Your task to perform on an android device: uninstall "Pandora - Music & Podcasts" Image 0: 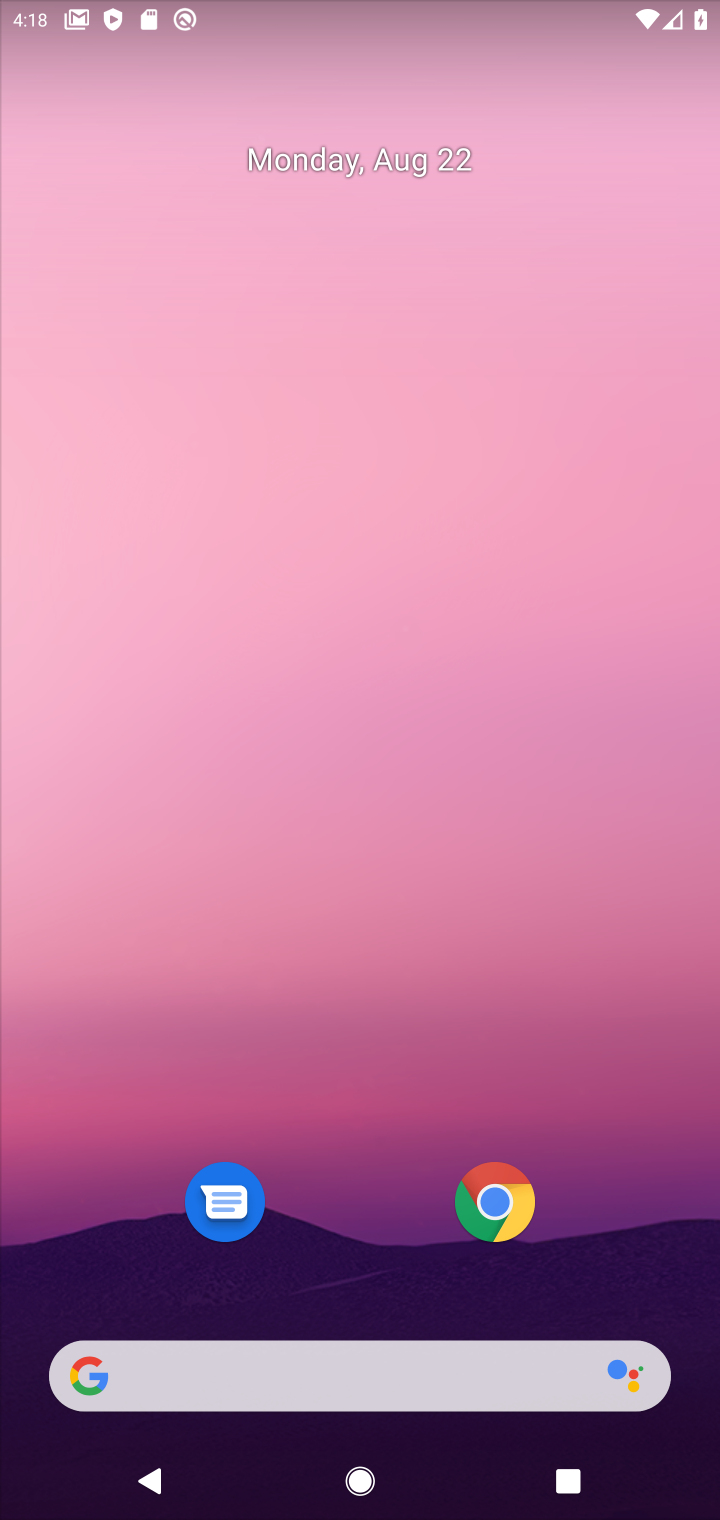
Step 0: drag from (378, 1006) to (492, 4)
Your task to perform on an android device: uninstall "Pandora - Music & Podcasts" Image 1: 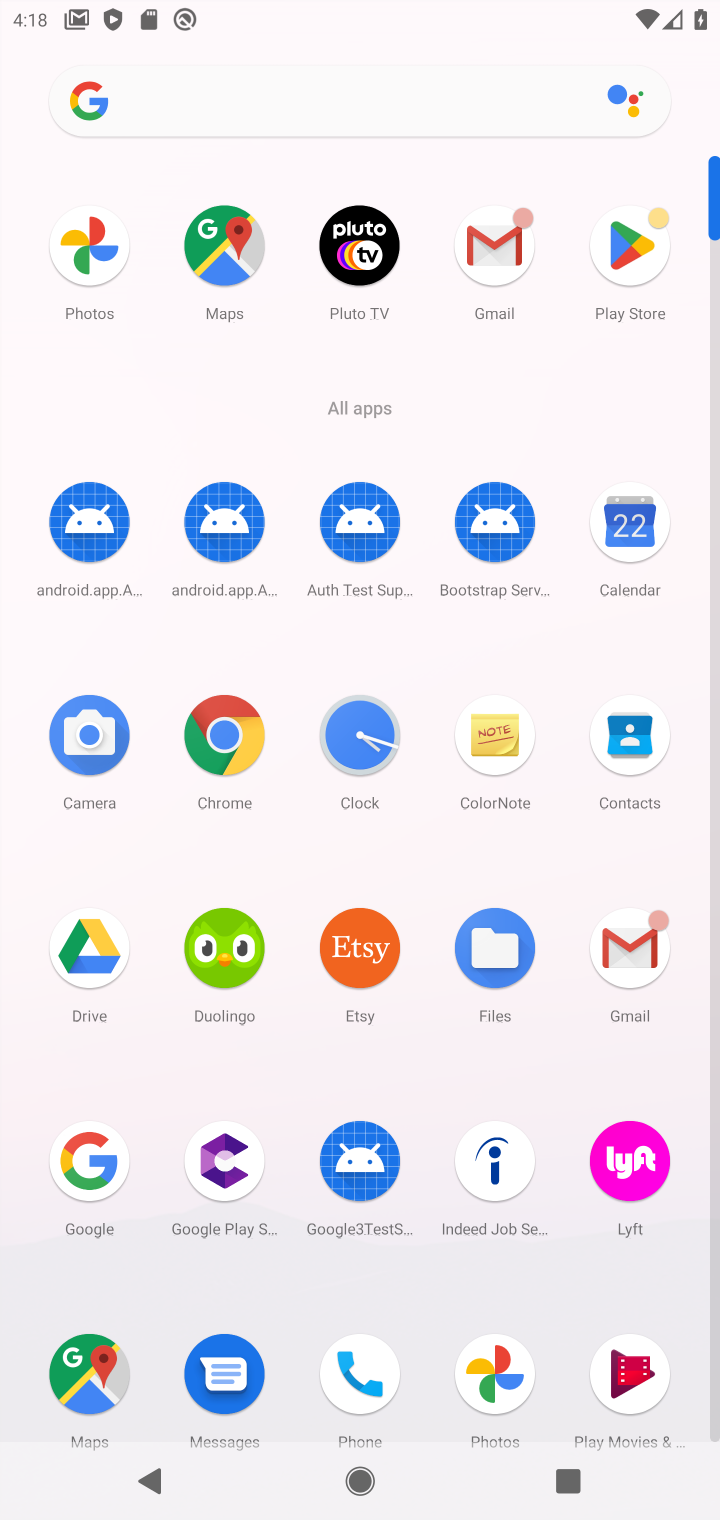
Step 1: click (630, 289)
Your task to perform on an android device: uninstall "Pandora - Music & Podcasts" Image 2: 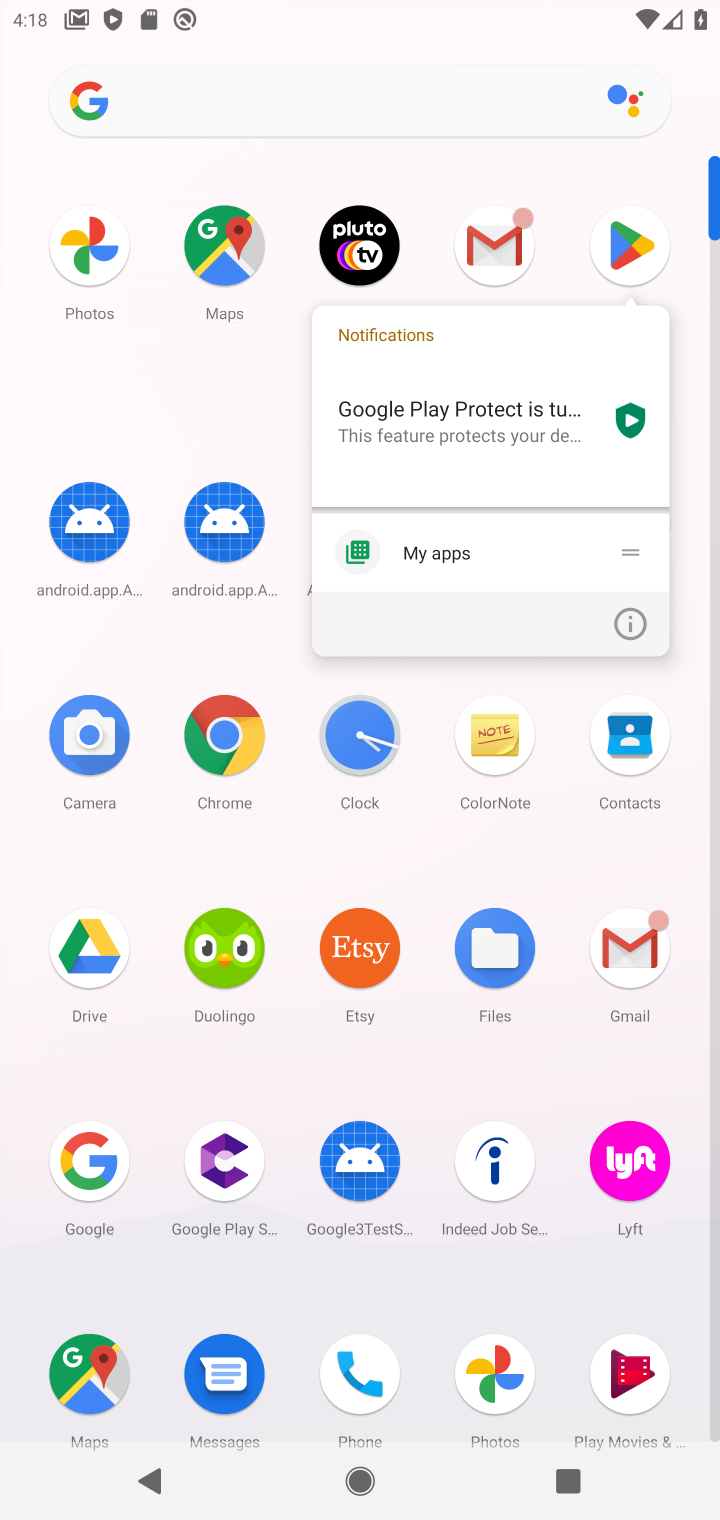
Step 2: click (605, 238)
Your task to perform on an android device: uninstall "Pandora - Music & Podcasts" Image 3: 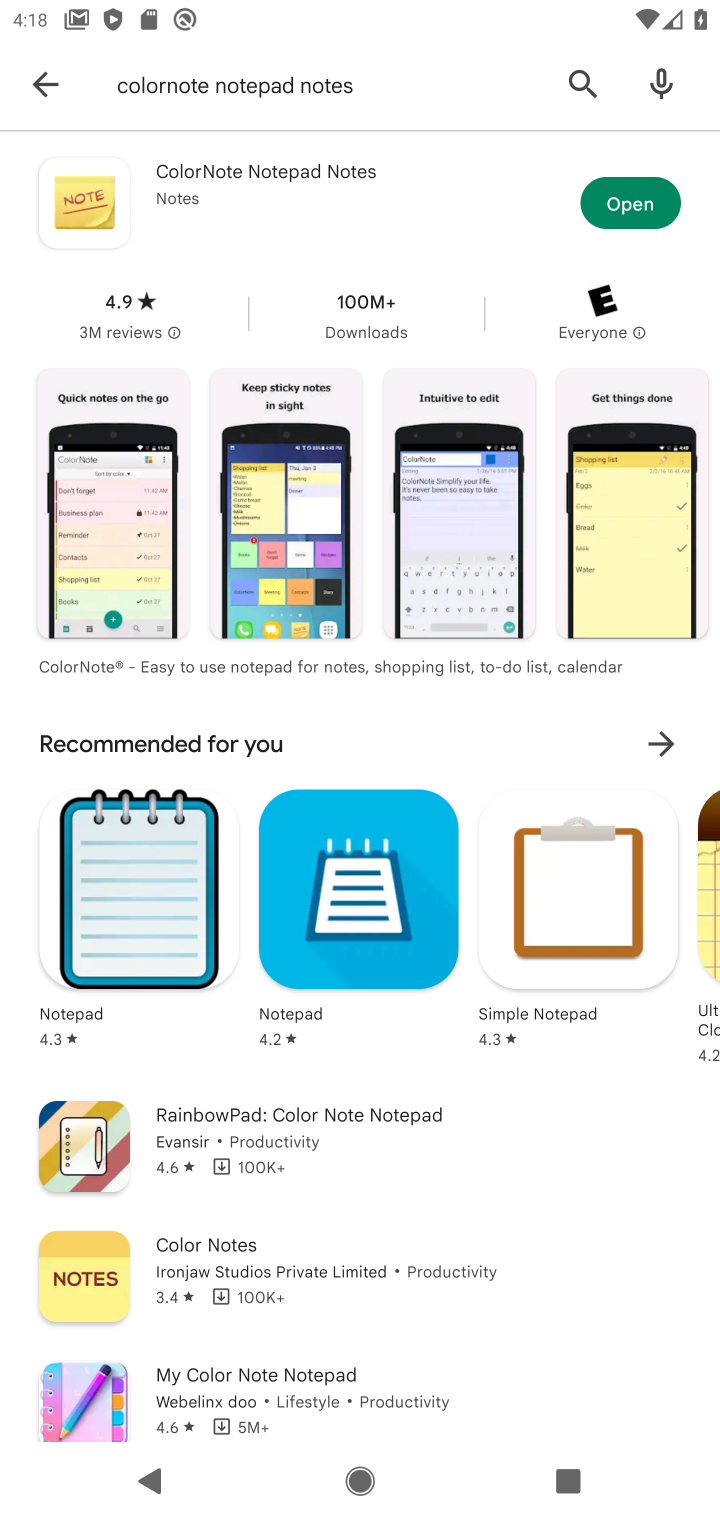
Step 3: click (251, 85)
Your task to perform on an android device: uninstall "Pandora - Music & Podcasts" Image 4: 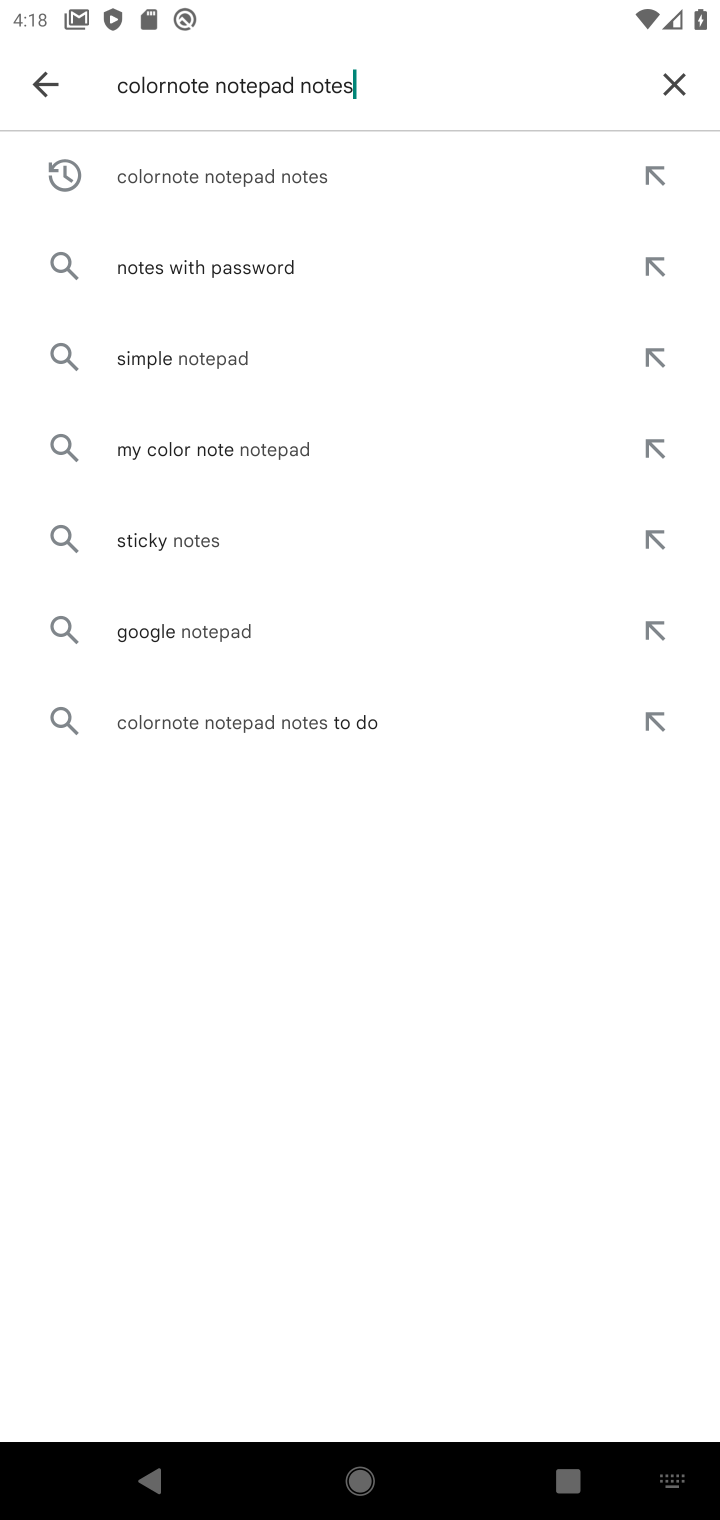
Step 4: click (677, 95)
Your task to perform on an android device: uninstall "Pandora - Music & Podcasts" Image 5: 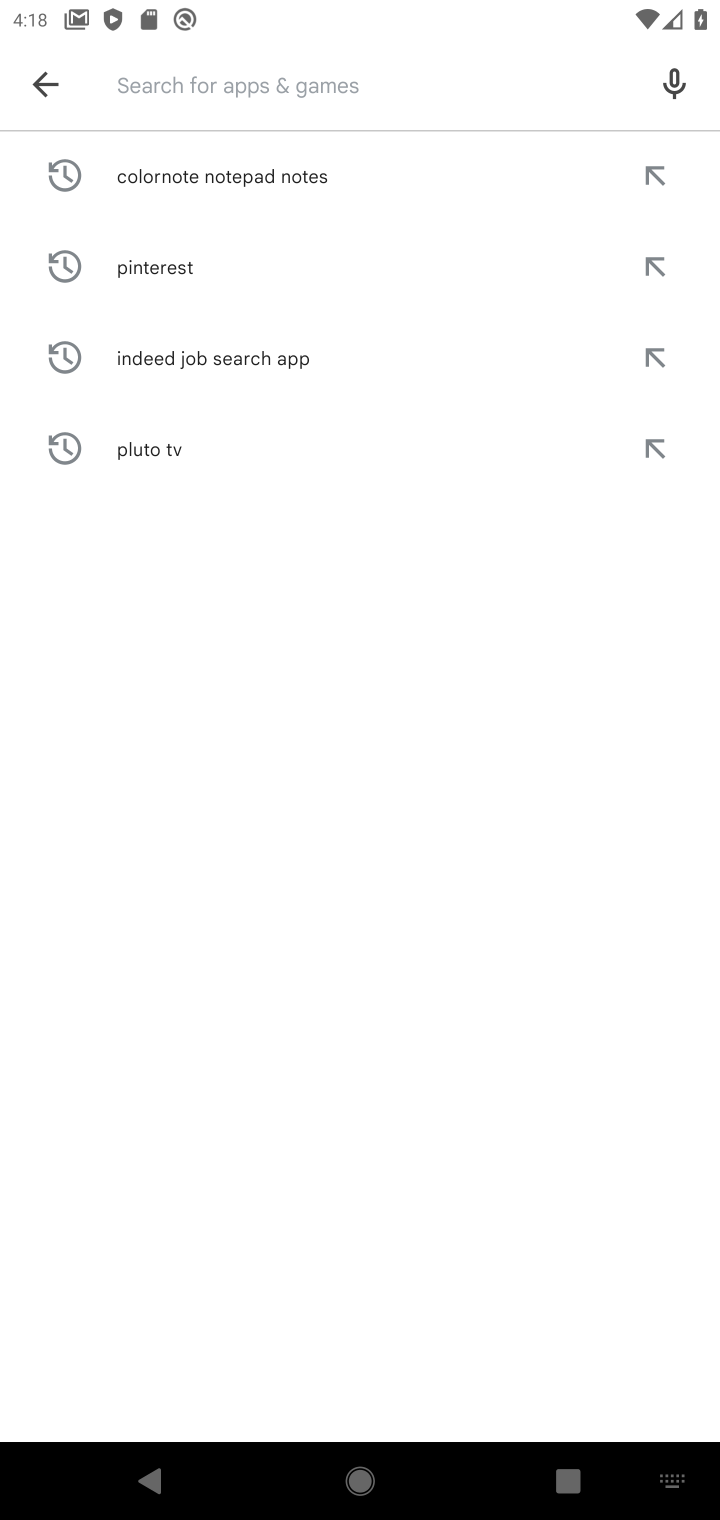
Step 5: type "pandora"
Your task to perform on an android device: uninstall "Pandora - Music & Podcasts" Image 6: 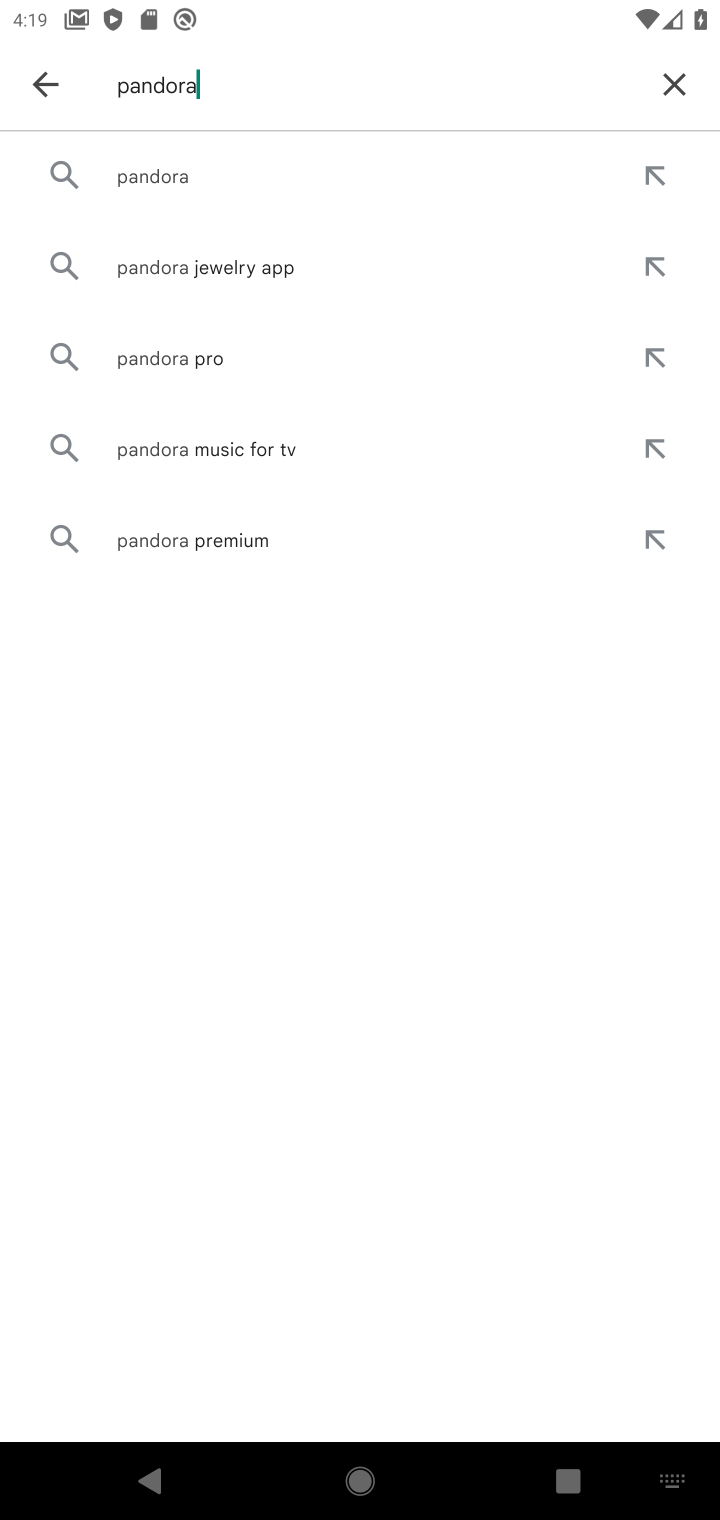
Step 6: click (201, 168)
Your task to perform on an android device: uninstall "Pandora - Music & Podcasts" Image 7: 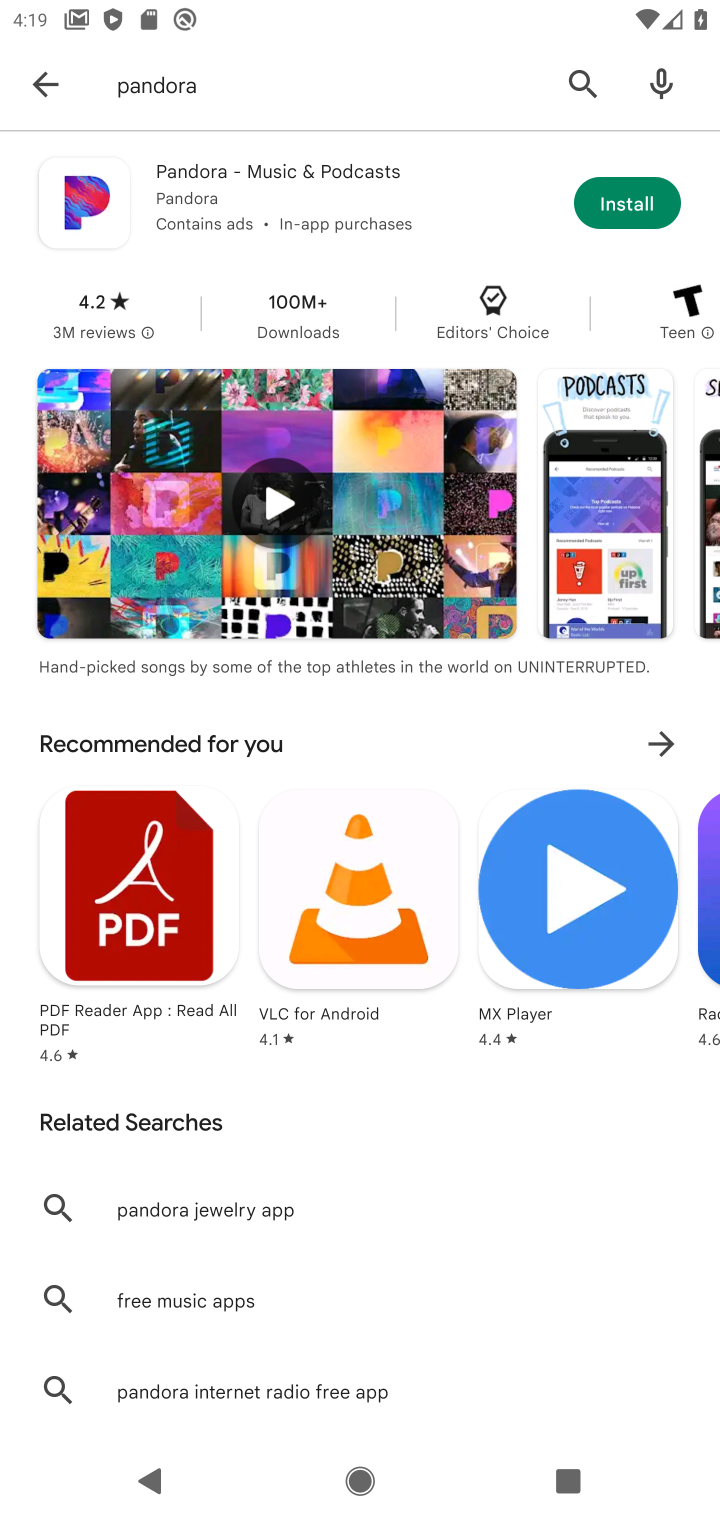
Step 7: task complete